Your task to perform on an android device: Add razer nari to the cart on ebay.com Image 0: 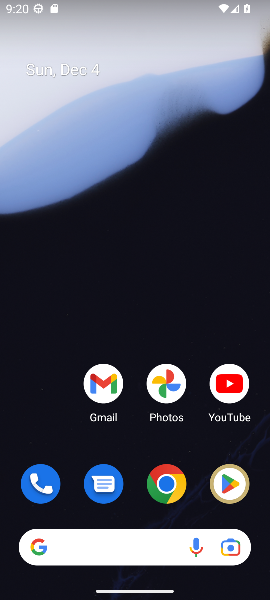
Step 0: click (160, 484)
Your task to perform on an android device: Add razer nari to the cart on ebay.com Image 1: 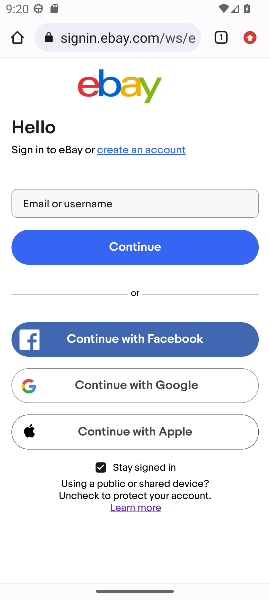
Step 1: press back button
Your task to perform on an android device: Add razer nari to the cart on ebay.com Image 2: 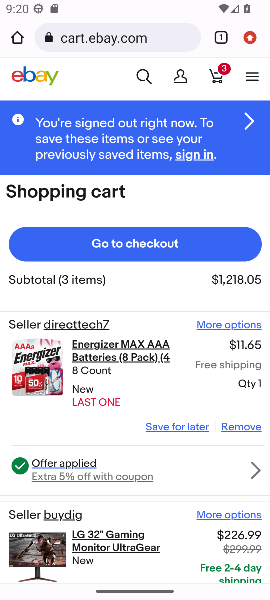
Step 2: click (142, 77)
Your task to perform on an android device: Add razer nari to the cart on ebay.com Image 3: 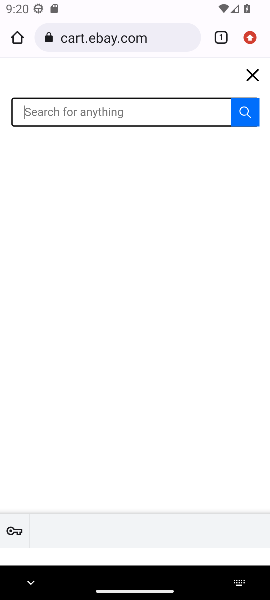
Step 3: type "razer nari "
Your task to perform on an android device: Add razer nari to the cart on ebay.com Image 4: 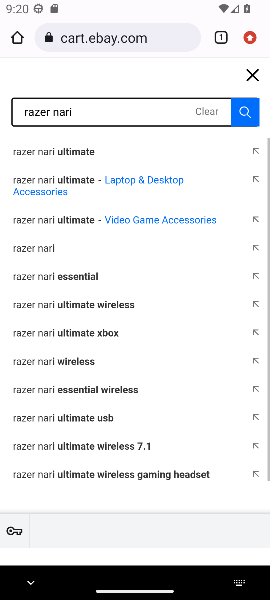
Step 4: click (43, 253)
Your task to perform on an android device: Add razer nari to the cart on ebay.com Image 5: 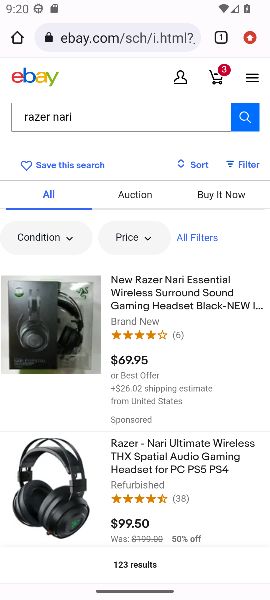
Step 5: click (129, 314)
Your task to perform on an android device: Add razer nari to the cart on ebay.com Image 6: 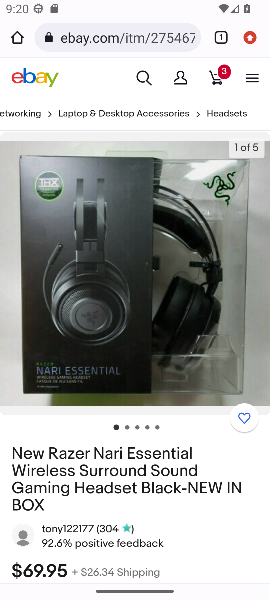
Step 6: drag from (149, 479) to (145, 150)
Your task to perform on an android device: Add razer nari to the cart on ebay.com Image 7: 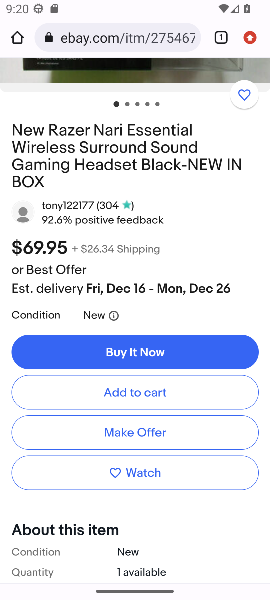
Step 7: click (134, 388)
Your task to perform on an android device: Add razer nari to the cart on ebay.com Image 8: 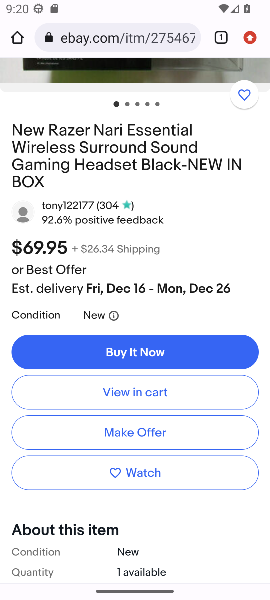
Step 8: task complete